Your task to perform on an android device: Open Youtube and go to "Your channel" Image 0: 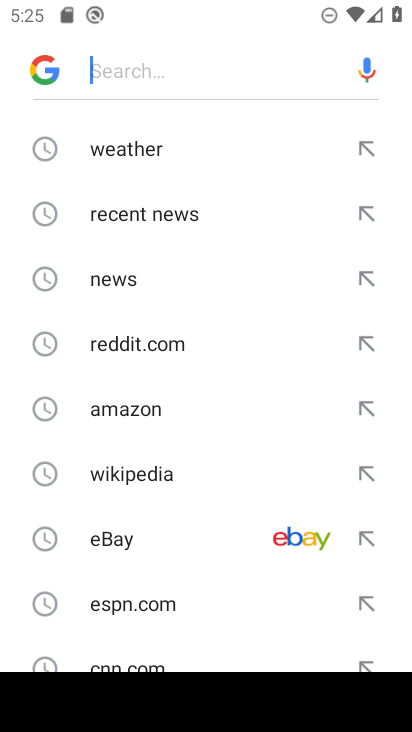
Step 0: press home button
Your task to perform on an android device: Open Youtube and go to "Your channel" Image 1: 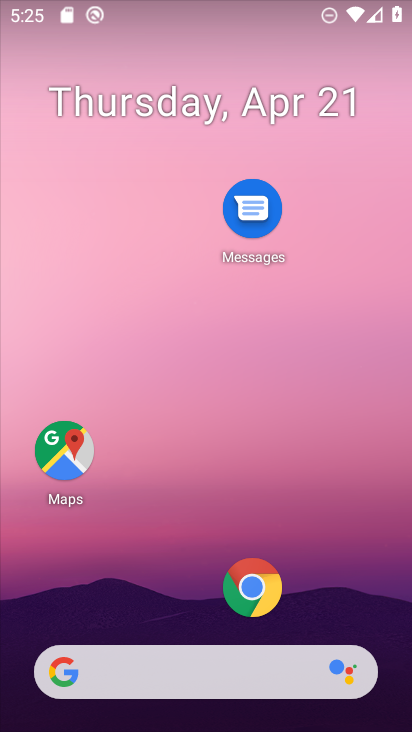
Step 1: drag from (216, 451) to (219, 51)
Your task to perform on an android device: Open Youtube and go to "Your channel" Image 2: 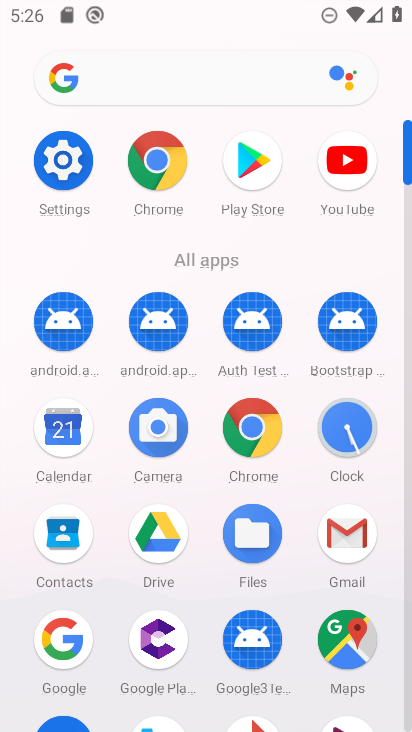
Step 2: click (341, 163)
Your task to perform on an android device: Open Youtube and go to "Your channel" Image 3: 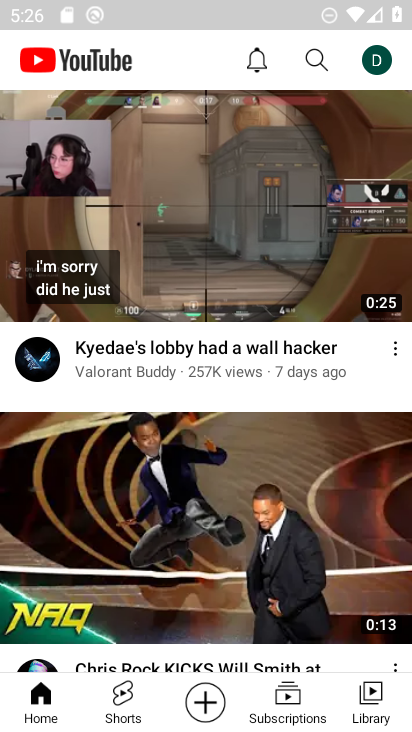
Step 3: click (372, 59)
Your task to perform on an android device: Open Youtube and go to "Your channel" Image 4: 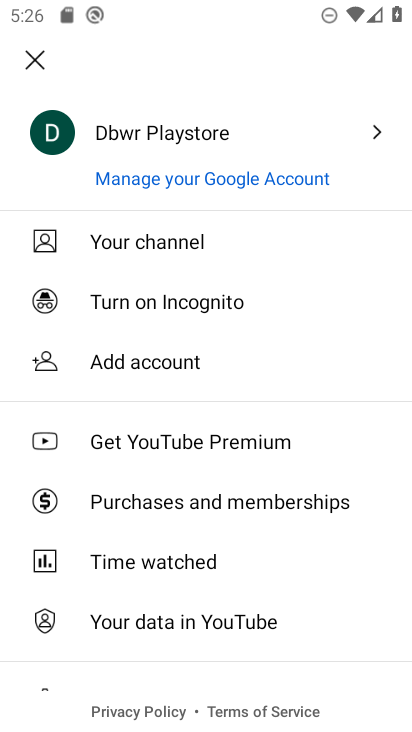
Step 4: click (210, 241)
Your task to perform on an android device: Open Youtube and go to "Your channel" Image 5: 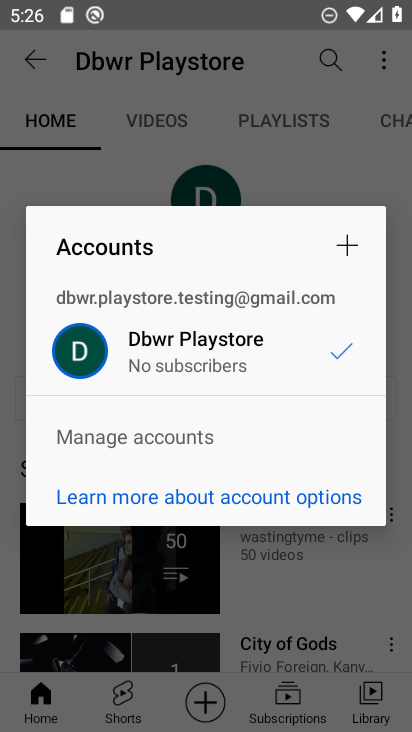
Step 5: click (286, 355)
Your task to perform on an android device: Open Youtube and go to "Your channel" Image 6: 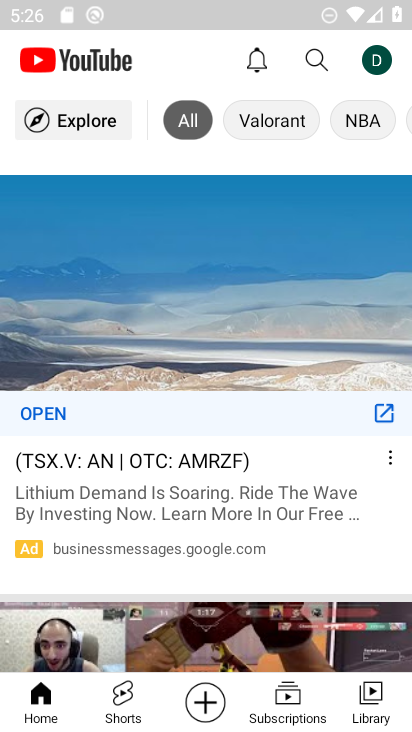
Step 6: click (371, 61)
Your task to perform on an android device: Open Youtube and go to "Your channel" Image 7: 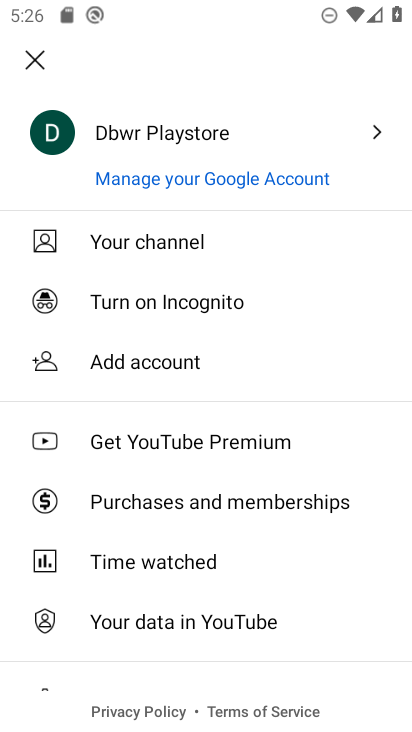
Step 7: click (165, 246)
Your task to perform on an android device: Open Youtube and go to "Your channel" Image 8: 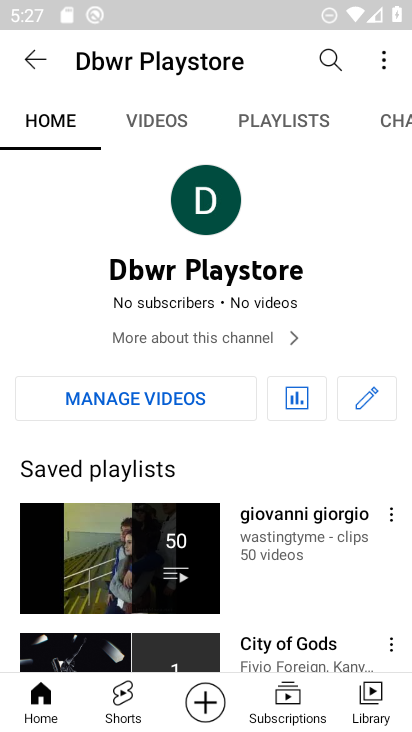
Step 8: task complete